Your task to perform on an android device: Toggle the flashlight Image 0: 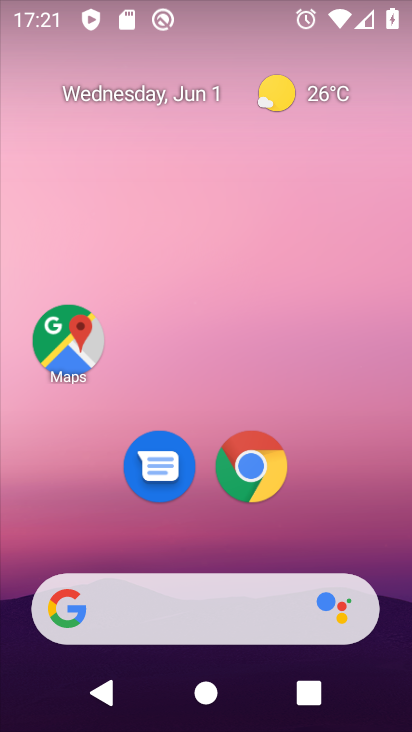
Step 0: drag from (339, 486) to (227, 25)
Your task to perform on an android device: Toggle the flashlight Image 1: 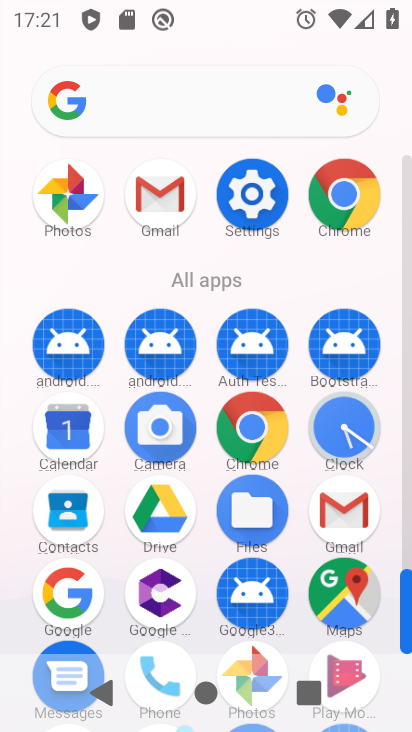
Step 1: click (248, 197)
Your task to perform on an android device: Toggle the flashlight Image 2: 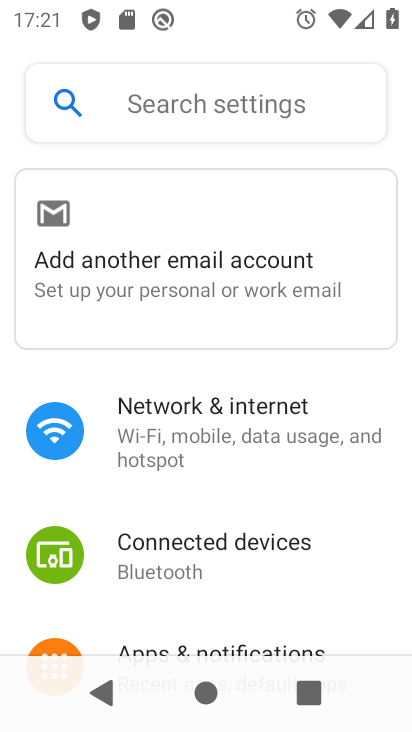
Step 2: drag from (203, 487) to (178, 187)
Your task to perform on an android device: Toggle the flashlight Image 3: 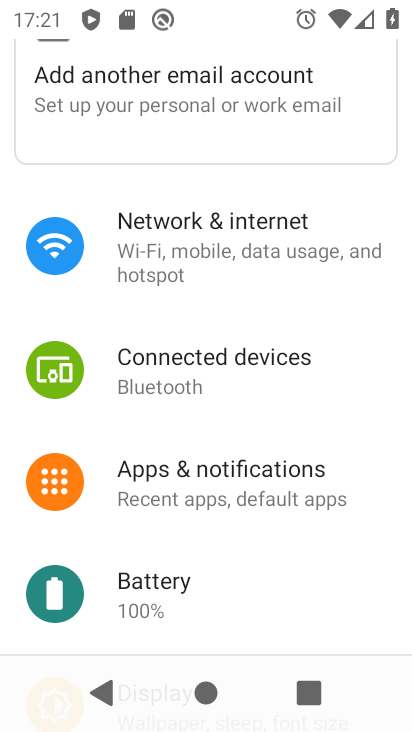
Step 3: drag from (215, 540) to (186, 242)
Your task to perform on an android device: Toggle the flashlight Image 4: 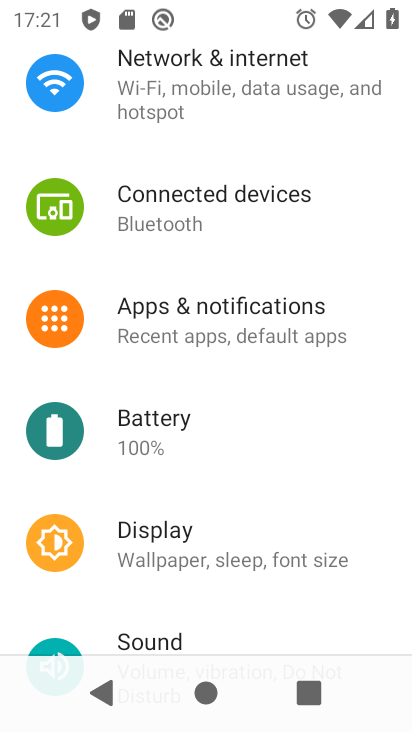
Step 4: click (149, 528)
Your task to perform on an android device: Toggle the flashlight Image 5: 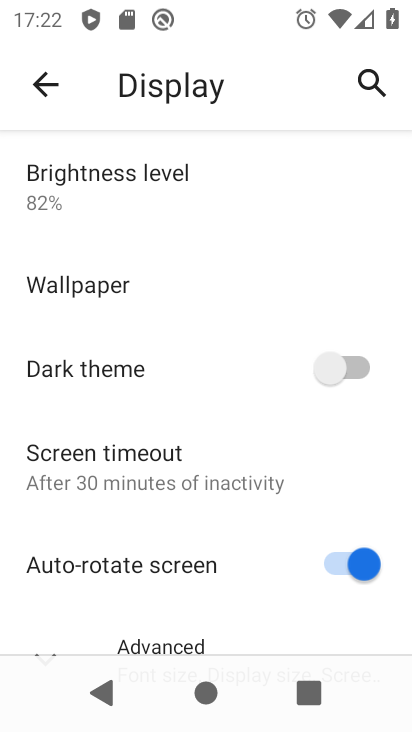
Step 5: task complete